Your task to perform on an android device: Open Android settings Image 0: 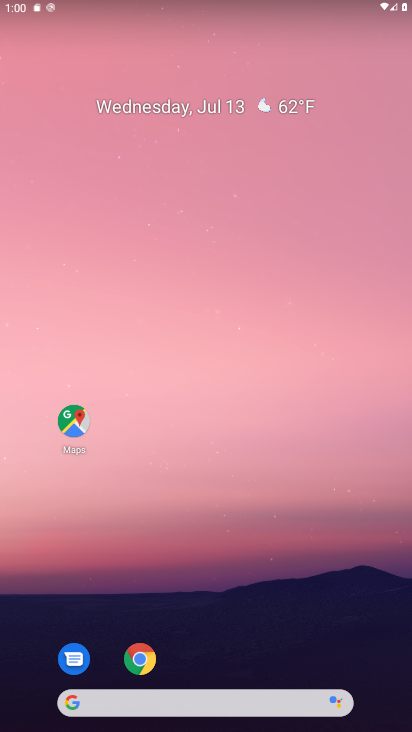
Step 0: drag from (231, 689) to (214, 255)
Your task to perform on an android device: Open Android settings Image 1: 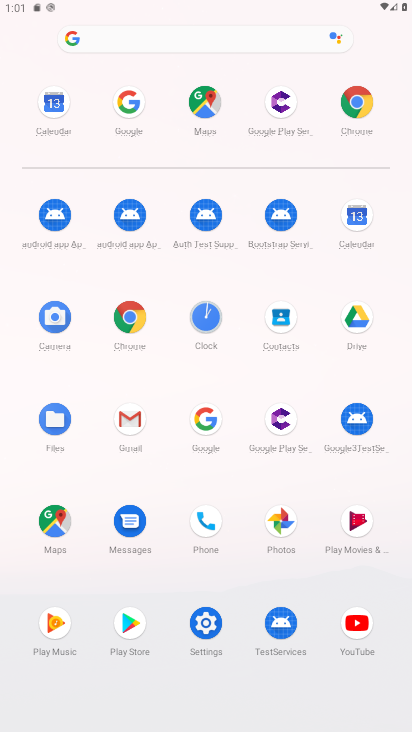
Step 1: click (198, 620)
Your task to perform on an android device: Open Android settings Image 2: 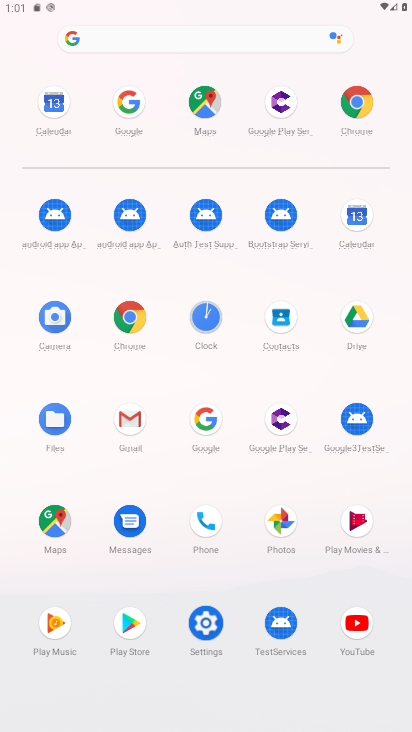
Step 2: click (200, 620)
Your task to perform on an android device: Open Android settings Image 3: 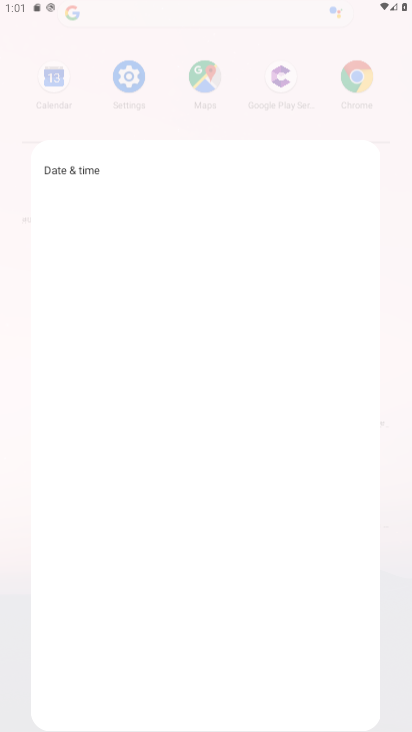
Step 3: click (200, 620)
Your task to perform on an android device: Open Android settings Image 4: 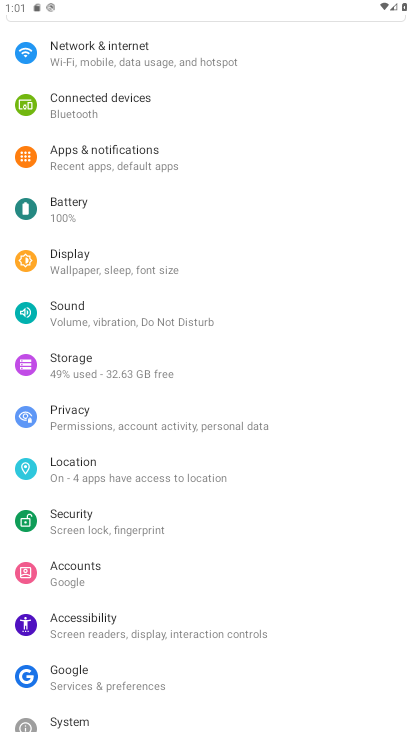
Step 4: drag from (108, 594) to (169, 54)
Your task to perform on an android device: Open Android settings Image 5: 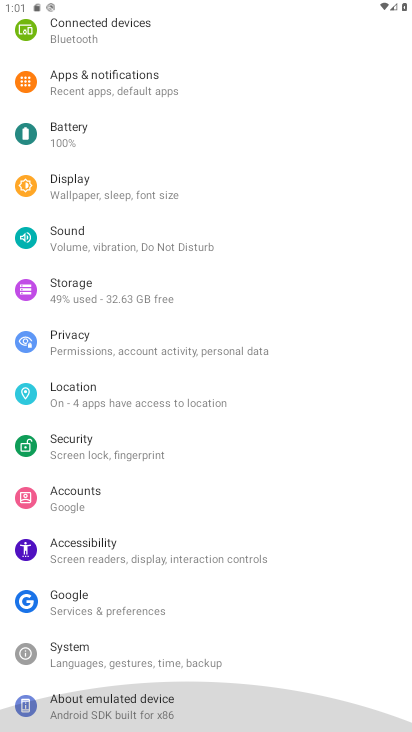
Step 5: drag from (163, 501) to (101, 134)
Your task to perform on an android device: Open Android settings Image 6: 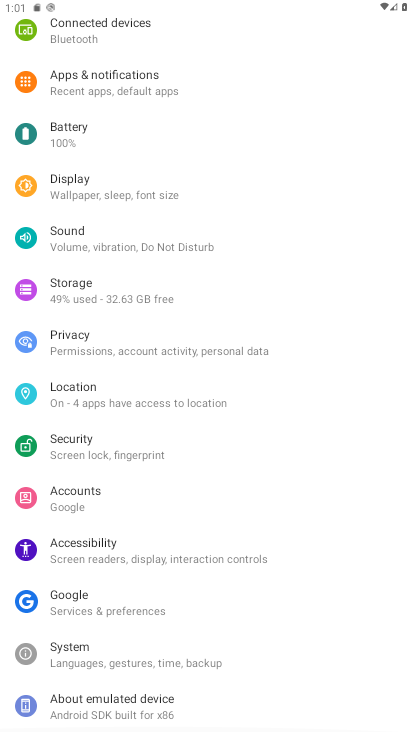
Step 6: drag from (125, 500) to (90, 229)
Your task to perform on an android device: Open Android settings Image 7: 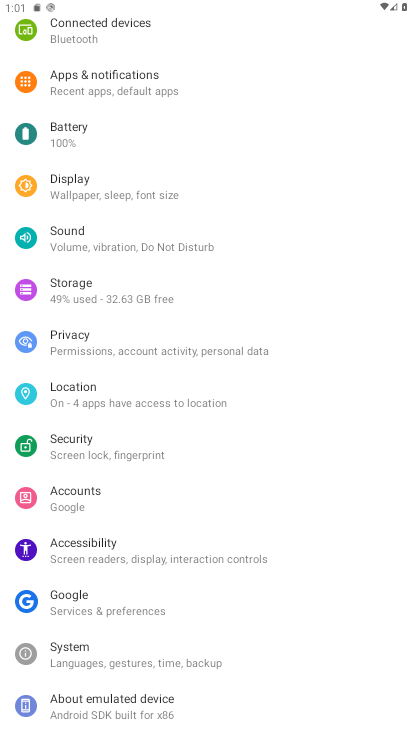
Step 7: click (92, 693)
Your task to perform on an android device: Open Android settings Image 8: 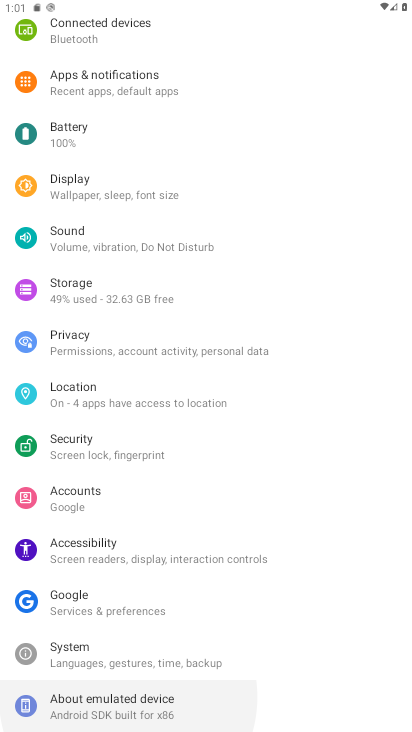
Step 8: click (98, 691)
Your task to perform on an android device: Open Android settings Image 9: 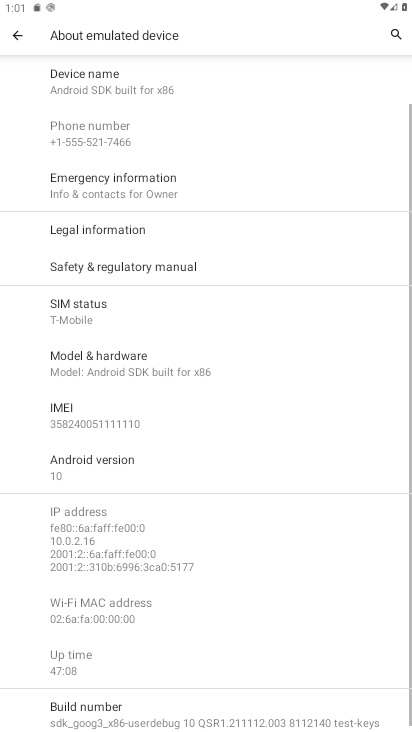
Step 9: task complete